Your task to perform on an android device: Show me the alarms in the clock app Image 0: 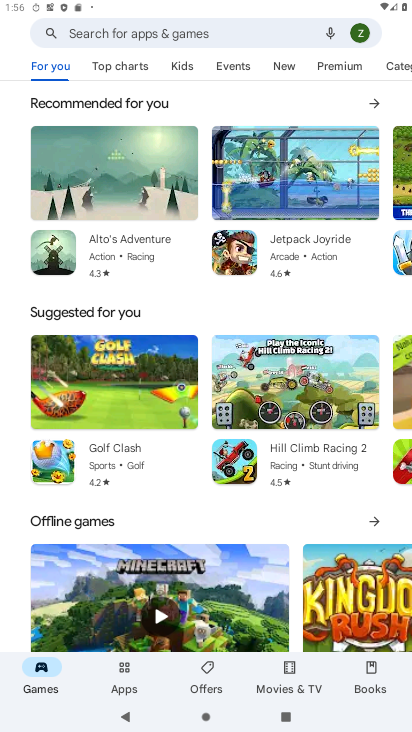
Step 0: press home button
Your task to perform on an android device: Show me the alarms in the clock app Image 1: 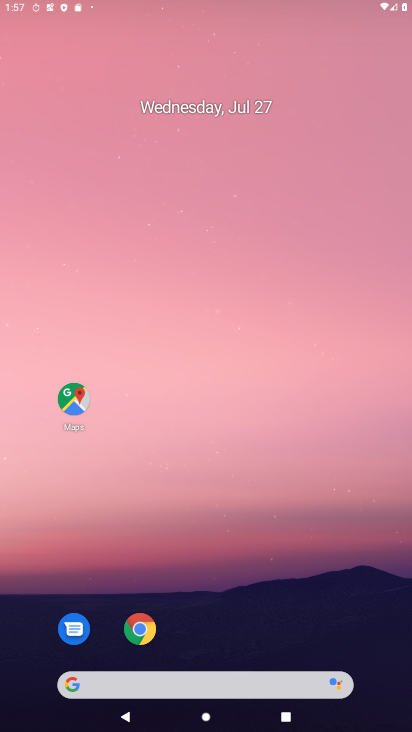
Step 1: drag from (384, 667) to (109, 53)
Your task to perform on an android device: Show me the alarms in the clock app Image 2: 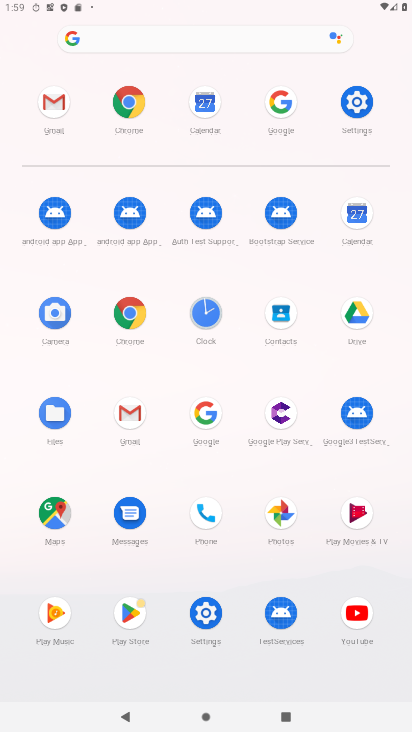
Step 2: click (204, 310)
Your task to perform on an android device: Show me the alarms in the clock app Image 3: 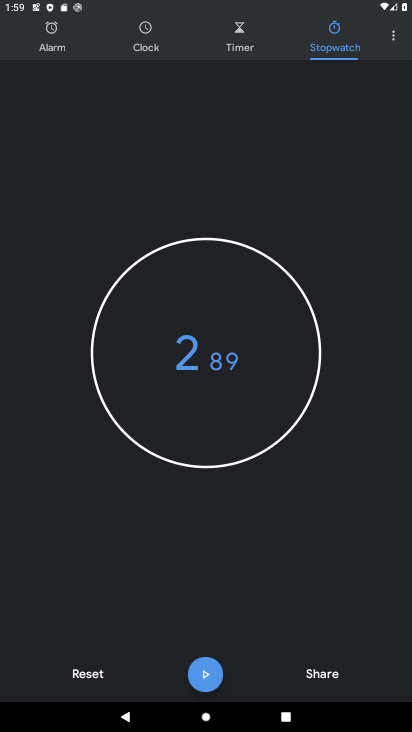
Step 3: click (56, 38)
Your task to perform on an android device: Show me the alarms in the clock app Image 4: 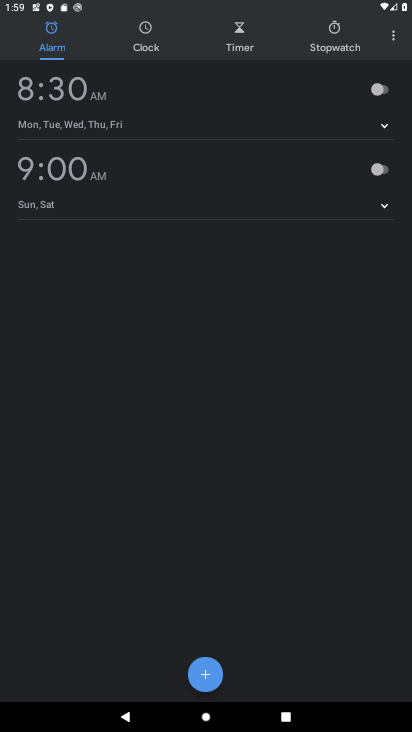
Step 4: task complete